Your task to perform on an android device: What's the weather? Image 0: 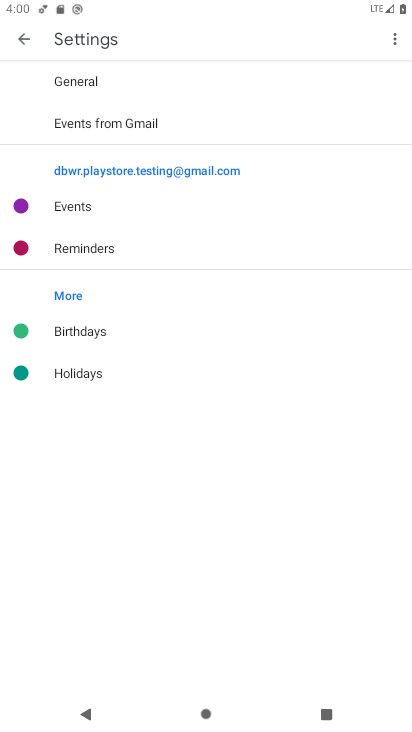
Step 0: press home button
Your task to perform on an android device: What's the weather? Image 1: 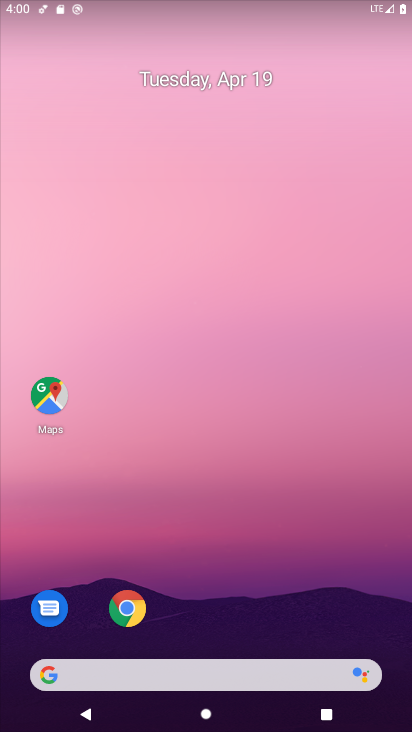
Step 1: drag from (267, 612) to (202, 101)
Your task to perform on an android device: What's the weather? Image 2: 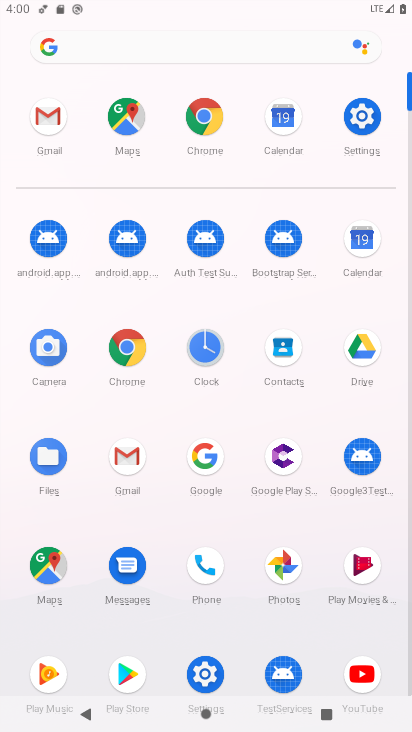
Step 2: click (138, 354)
Your task to perform on an android device: What's the weather? Image 3: 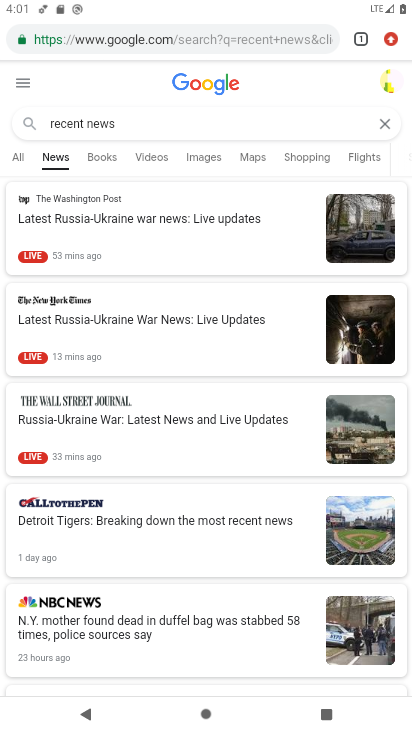
Step 3: click (181, 129)
Your task to perform on an android device: What's the weather? Image 4: 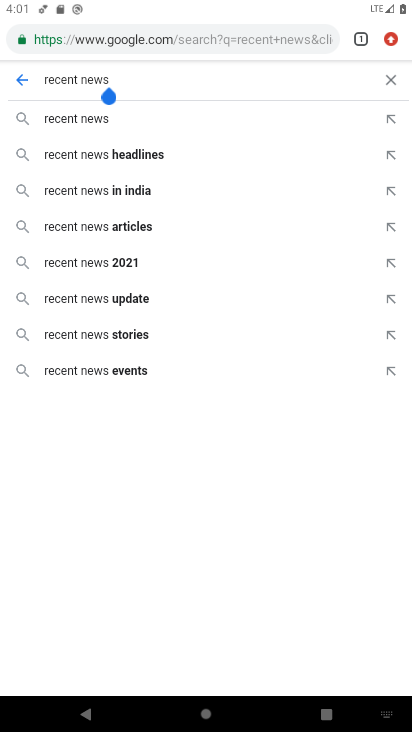
Step 4: click (139, 79)
Your task to perform on an android device: What's the weather? Image 5: 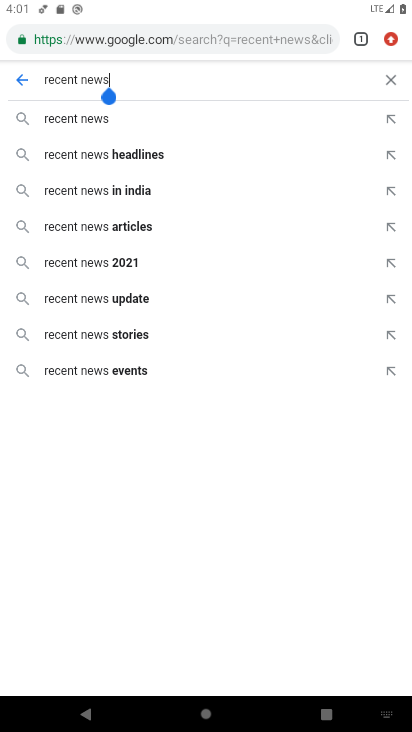
Step 5: drag from (131, 80) to (15, 79)
Your task to perform on an android device: What's the weather? Image 6: 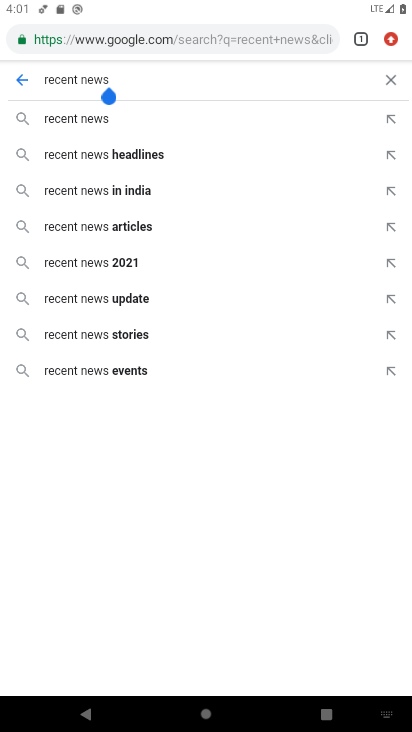
Step 6: click (198, 85)
Your task to perform on an android device: What's the weather? Image 7: 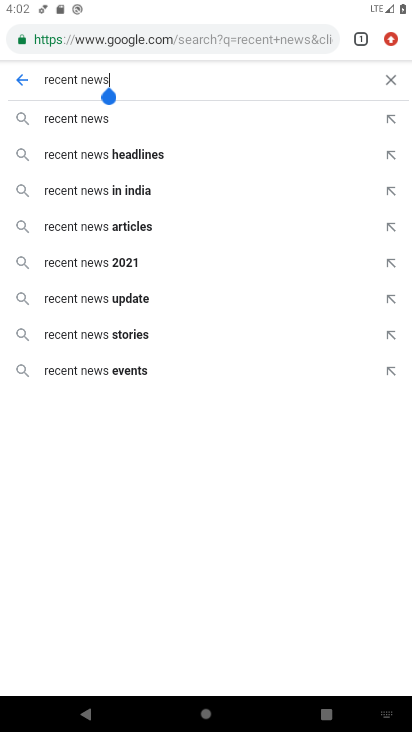
Step 7: drag from (124, 66) to (38, 79)
Your task to perform on an android device: What's the weather? Image 8: 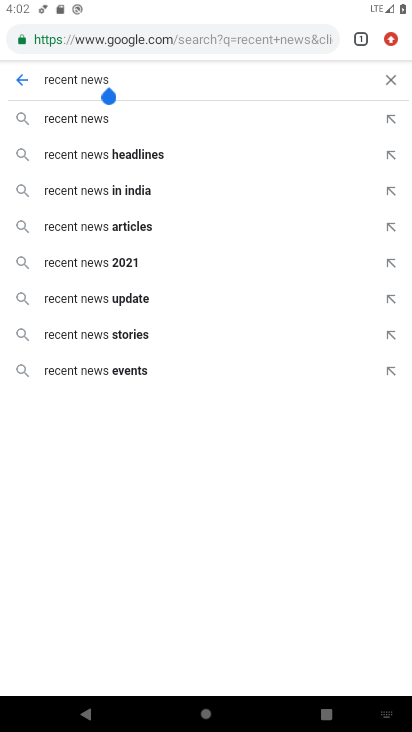
Step 8: drag from (45, 74) to (154, 67)
Your task to perform on an android device: What's the weather? Image 9: 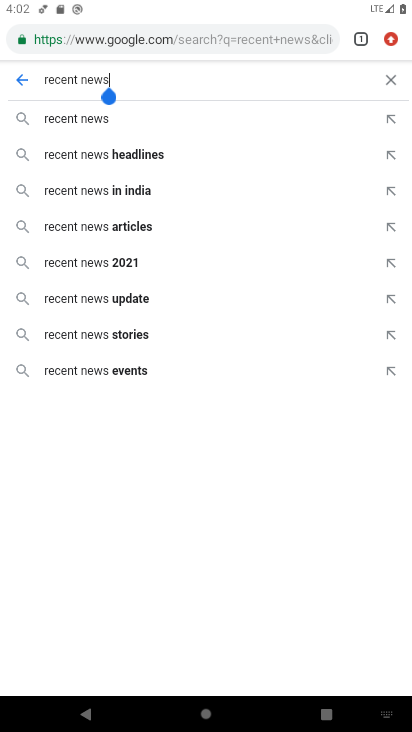
Step 9: click (17, 76)
Your task to perform on an android device: What's the weather? Image 10: 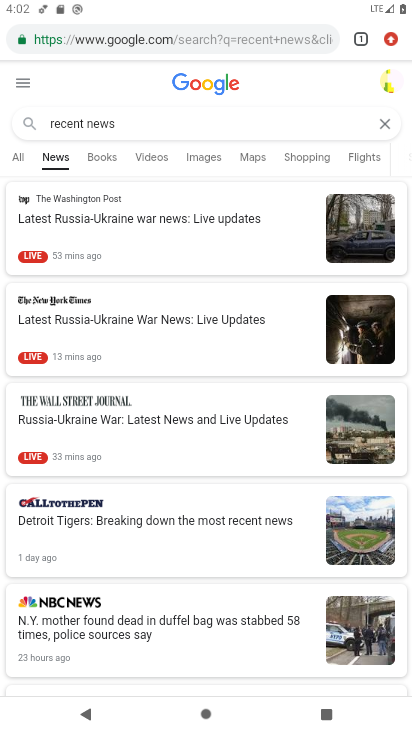
Step 10: click (25, 124)
Your task to perform on an android device: What's the weather? Image 11: 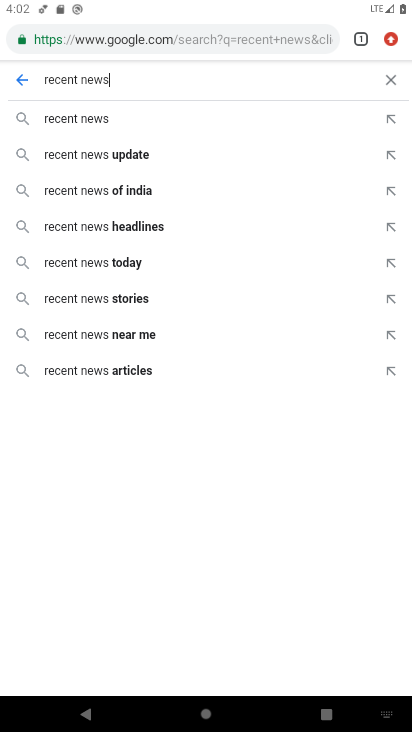
Step 11: click (387, 80)
Your task to perform on an android device: What's the weather? Image 12: 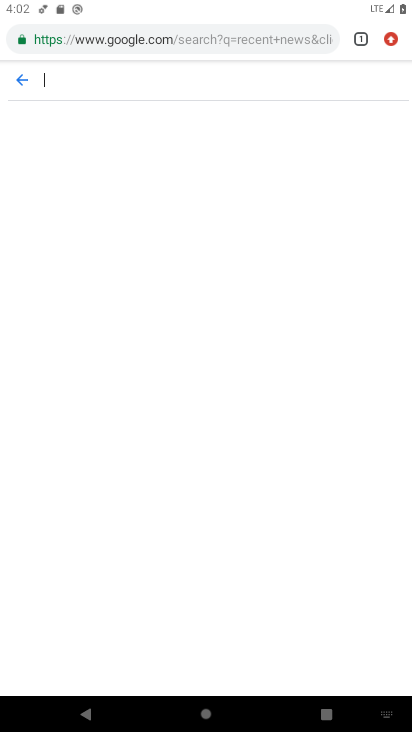
Step 12: type "weather"
Your task to perform on an android device: What's the weather? Image 13: 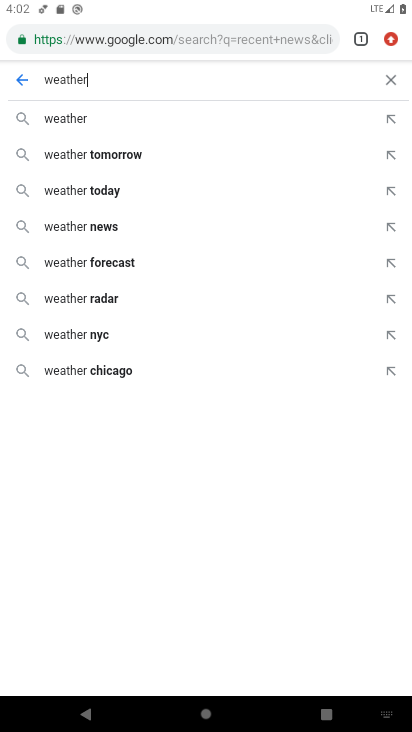
Step 13: click (79, 125)
Your task to perform on an android device: What's the weather? Image 14: 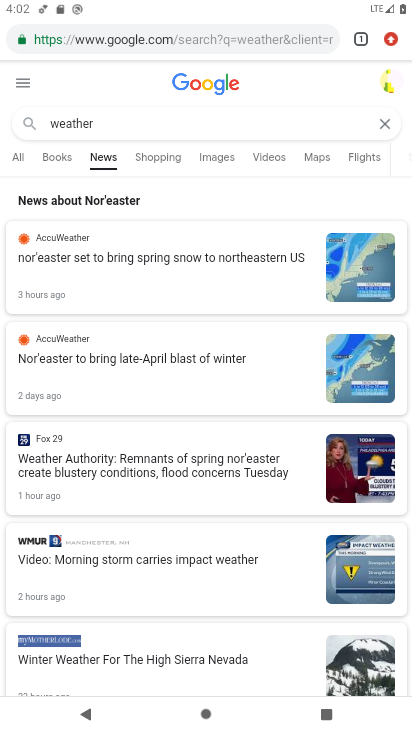
Step 14: click (16, 159)
Your task to perform on an android device: What's the weather? Image 15: 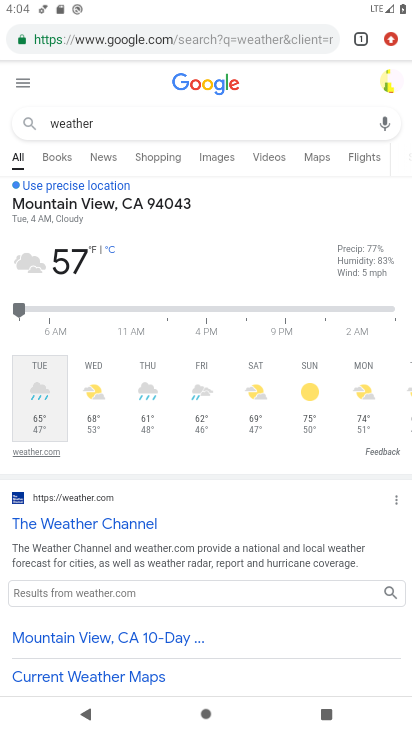
Step 15: task complete